Your task to perform on an android device: find snoozed emails in the gmail app Image 0: 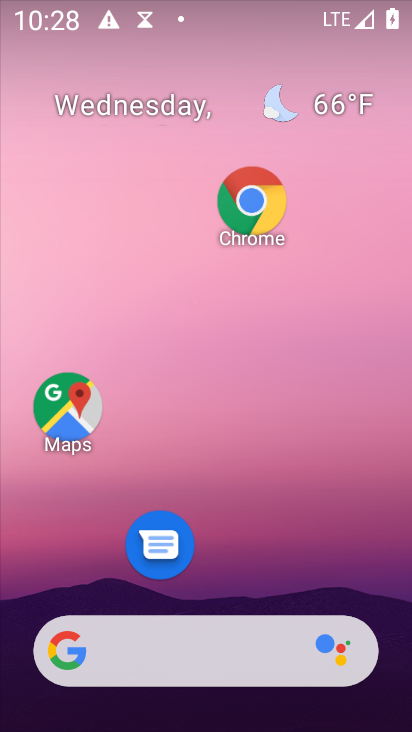
Step 0: drag from (229, 569) to (215, 100)
Your task to perform on an android device: find snoozed emails in the gmail app Image 1: 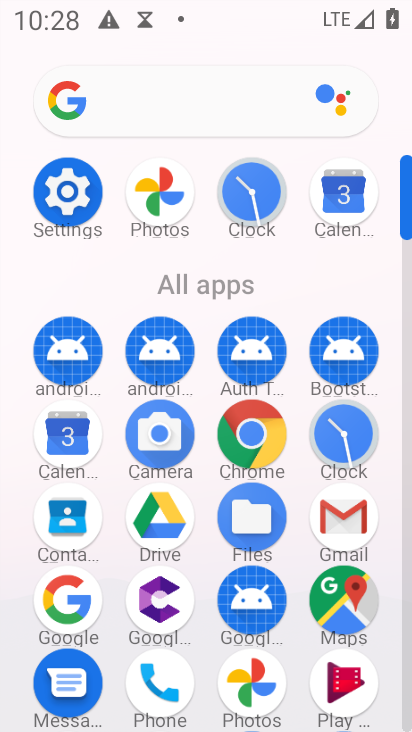
Step 1: click (358, 521)
Your task to perform on an android device: find snoozed emails in the gmail app Image 2: 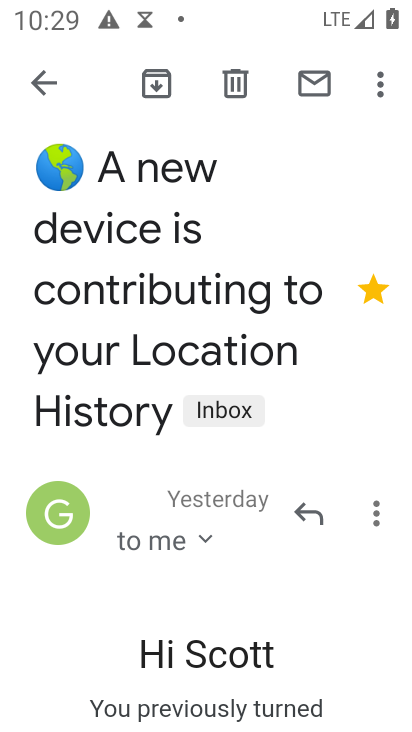
Step 2: click (34, 76)
Your task to perform on an android device: find snoozed emails in the gmail app Image 3: 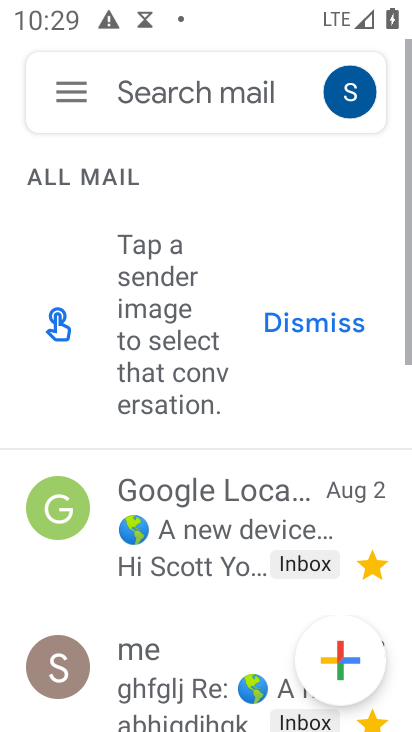
Step 3: click (52, 83)
Your task to perform on an android device: find snoozed emails in the gmail app Image 4: 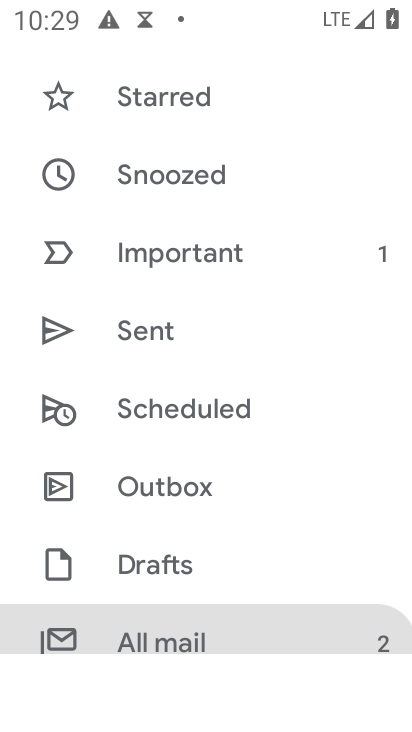
Step 4: click (142, 181)
Your task to perform on an android device: find snoozed emails in the gmail app Image 5: 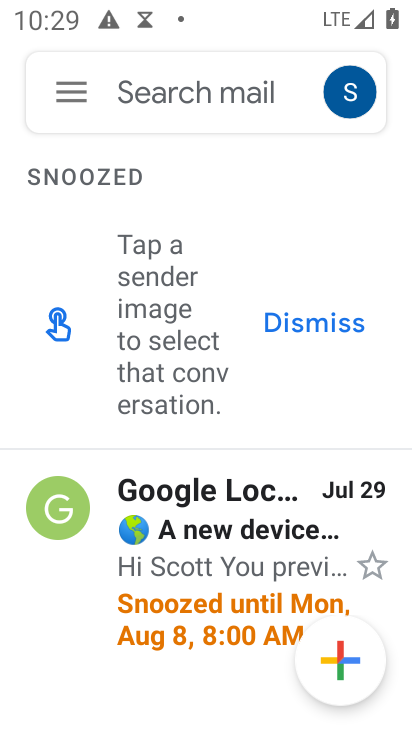
Step 5: task complete